Your task to perform on an android device: Go to Wikipedia Image 0: 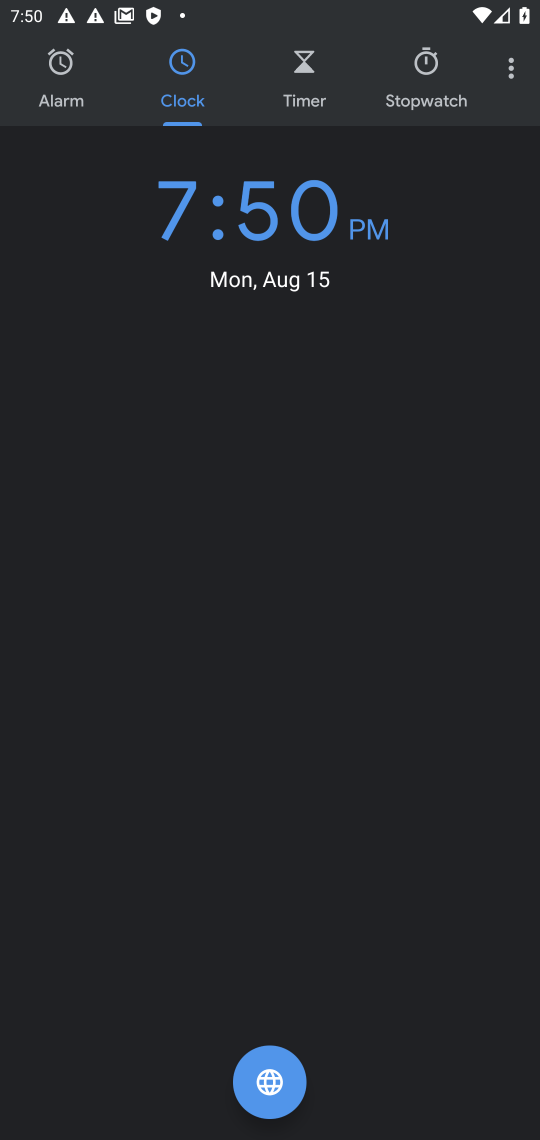
Step 0: press home button
Your task to perform on an android device: Go to Wikipedia Image 1: 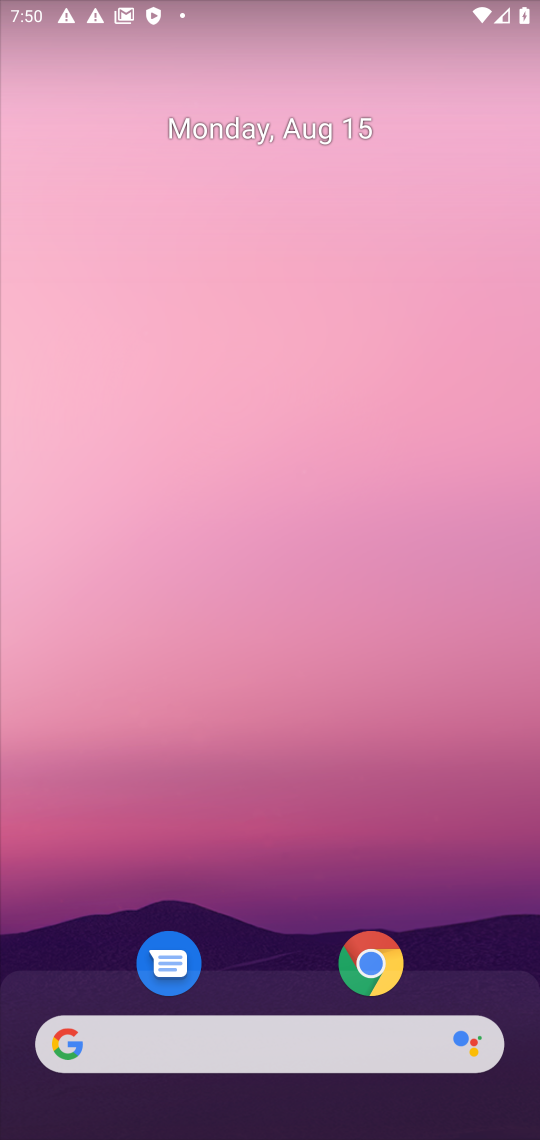
Step 1: click (366, 953)
Your task to perform on an android device: Go to Wikipedia Image 2: 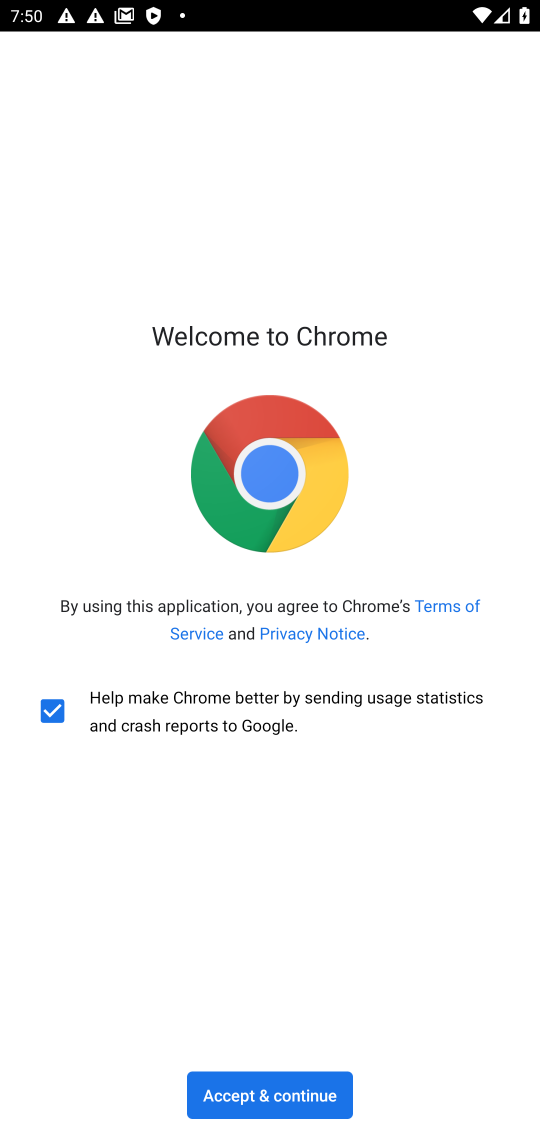
Step 2: click (232, 1086)
Your task to perform on an android device: Go to Wikipedia Image 3: 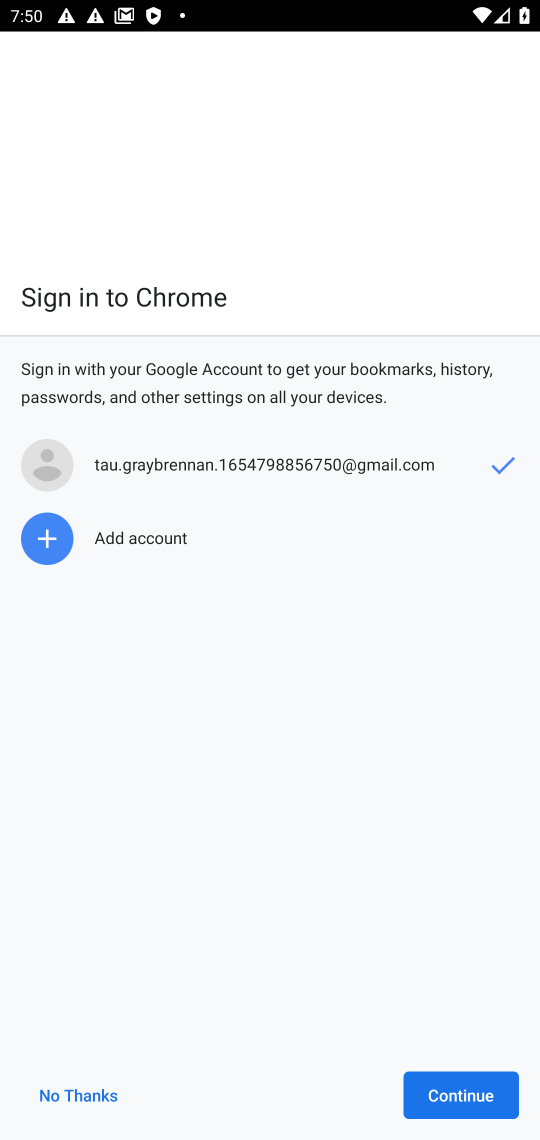
Step 3: click (504, 1089)
Your task to perform on an android device: Go to Wikipedia Image 4: 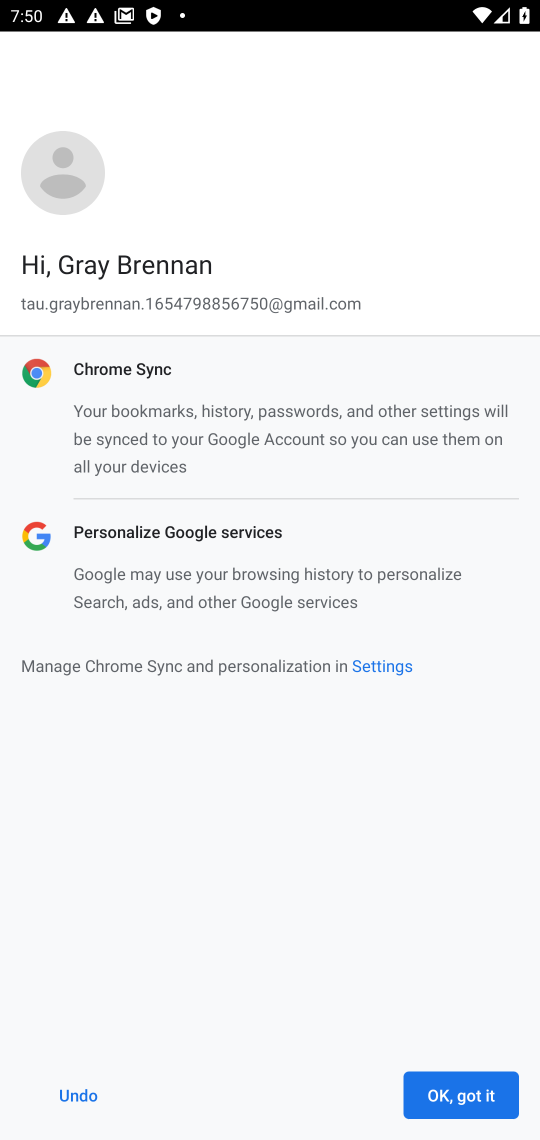
Step 4: click (446, 1094)
Your task to perform on an android device: Go to Wikipedia Image 5: 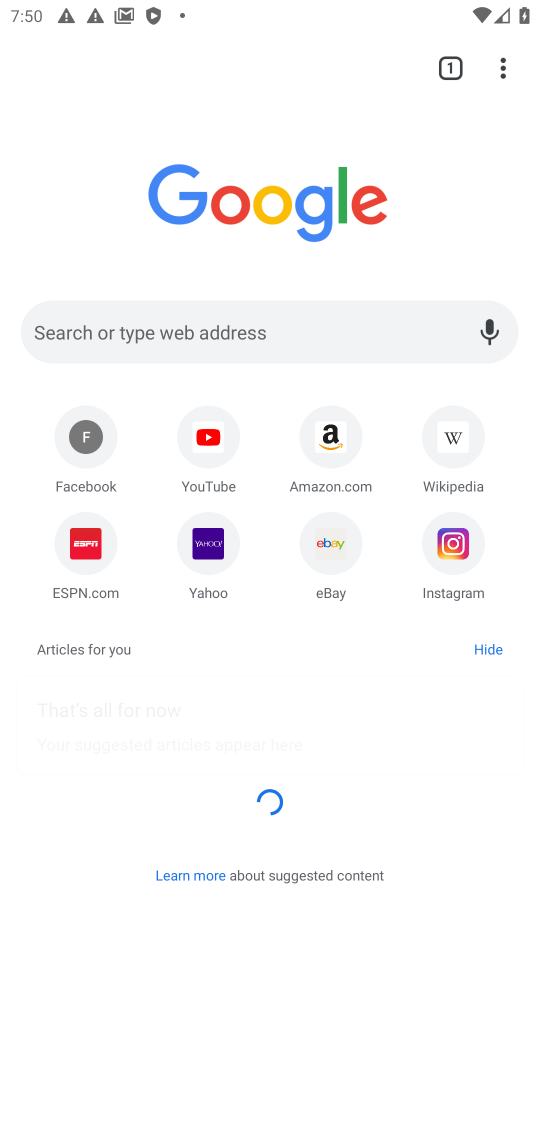
Step 5: click (459, 442)
Your task to perform on an android device: Go to Wikipedia Image 6: 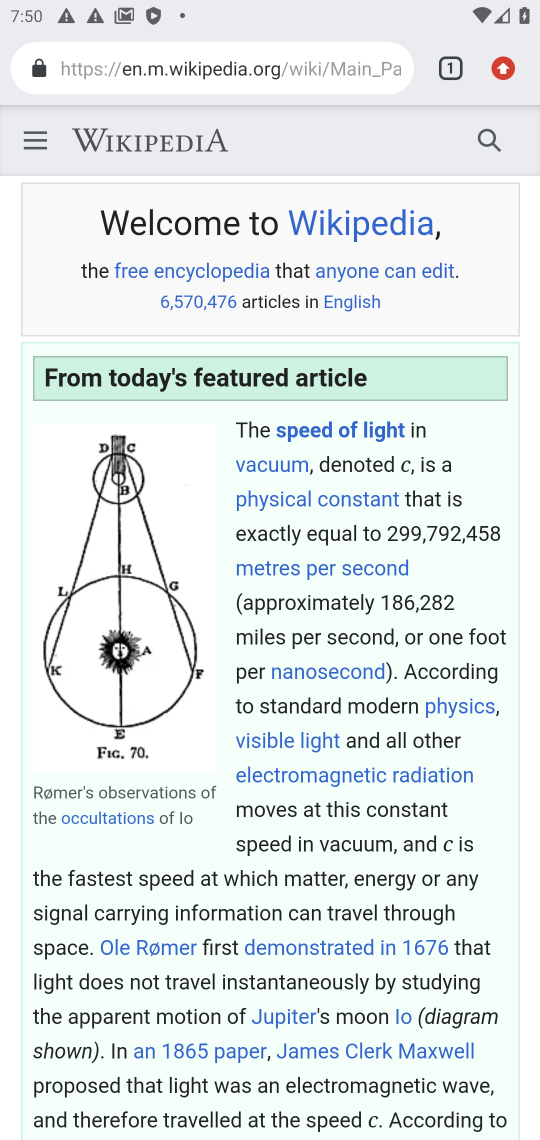
Step 6: task complete